Your task to perform on an android device: Show me popular videos on Youtube Image 0: 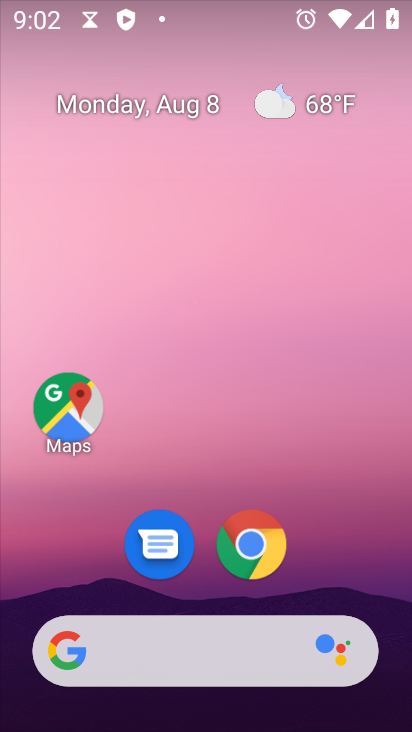
Step 0: press home button
Your task to perform on an android device: Show me popular videos on Youtube Image 1: 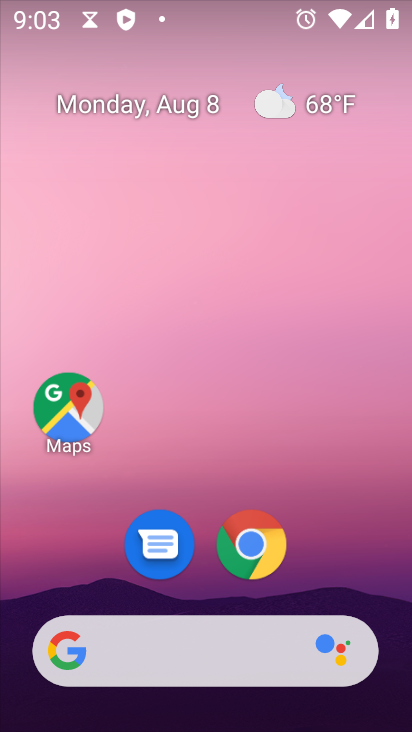
Step 1: drag from (312, 580) to (339, 130)
Your task to perform on an android device: Show me popular videos on Youtube Image 2: 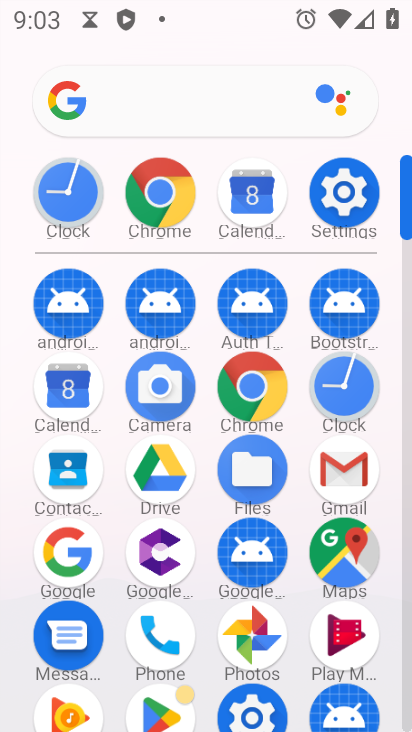
Step 2: drag from (299, 596) to (304, 177)
Your task to perform on an android device: Show me popular videos on Youtube Image 3: 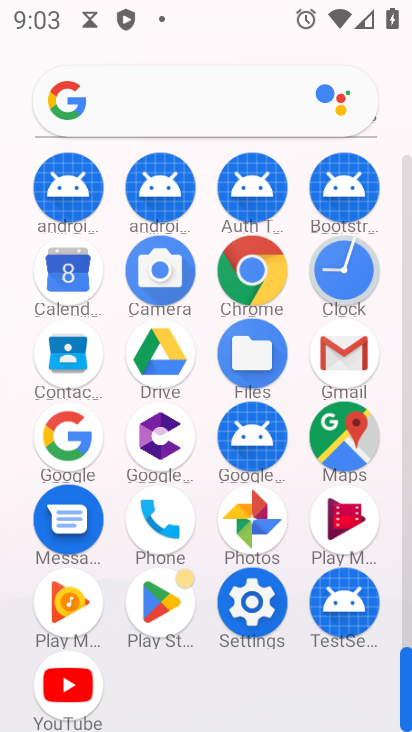
Step 3: click (66, 678)
Your task to perform on an android device: Show me popular videos on Youtube Image 4: 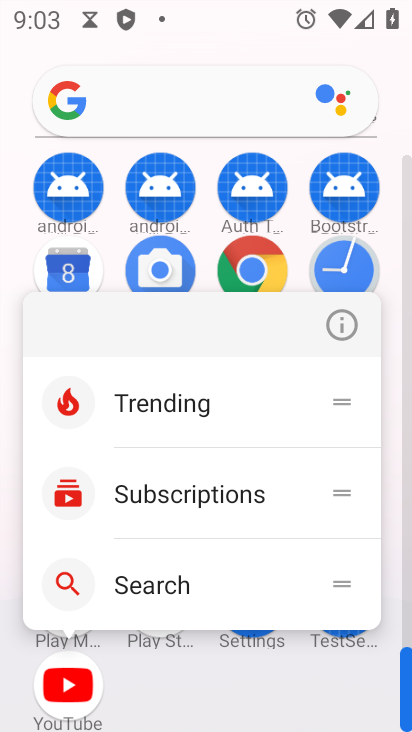
Step 4: click (62, 680)
Your task to perform on an android device: Show me popular videos on Youtube Image 5: 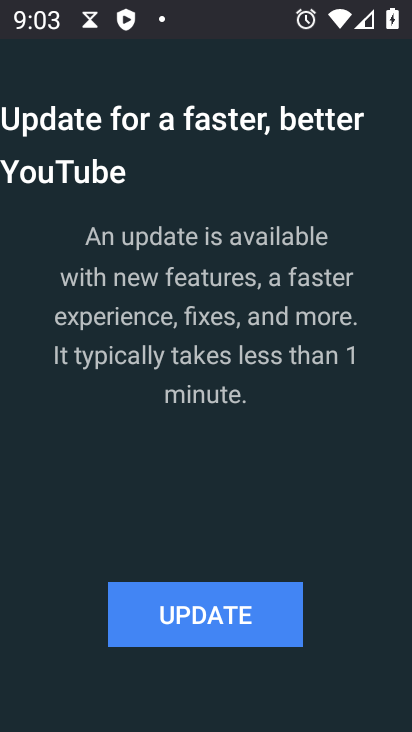
Step 5: click (195, 610)
Your task to perform on an android device: Show me popular videos on Youtube Image 6: 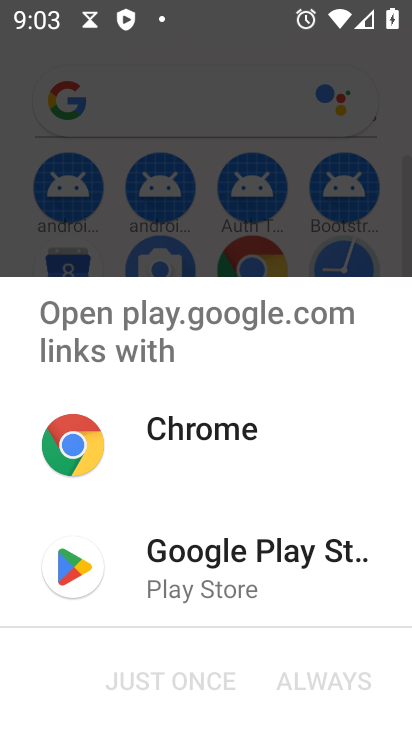
Step 6: click (136, 564)
Your task to perform on an android device: Show me popular videos on Youtube Image 7: 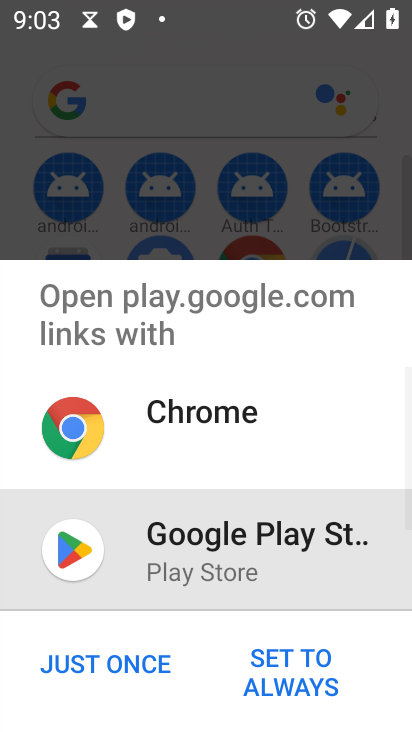
Step 7: click (120, 656)
Your task to perform on an android device: Show me popular videos on Youtube Image 8: 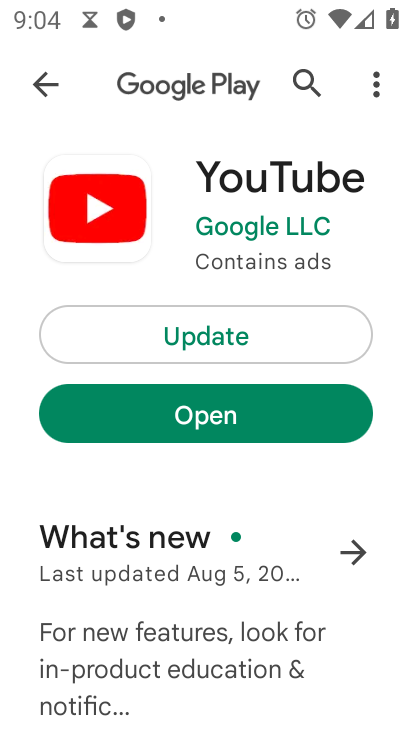
Step 8: click (193, 343)
Your task to perform on an android device: Show me popular videos on Youtube Image 9: 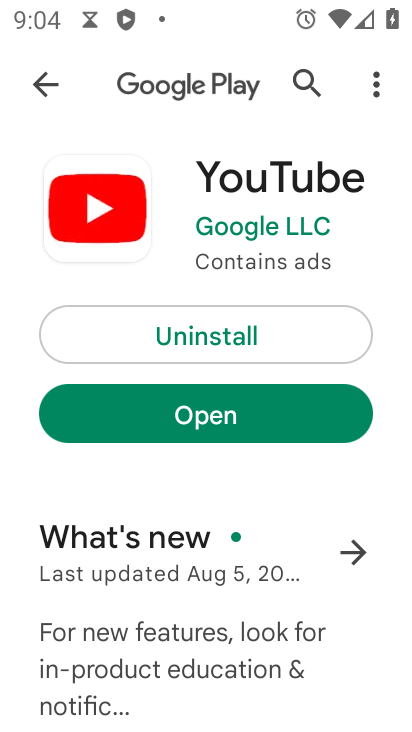
Step 9: click (211, 425)
Your task to perform on an android device: Show me popular videos on Youtube Image 10: 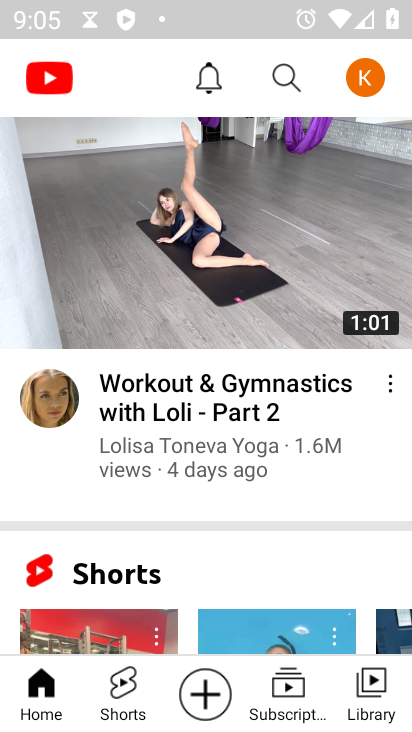
Step 10: drag from (80, 197) to (61, 588)
Your task to perform on an android device: Show me popular videos on Youtube Image 11: 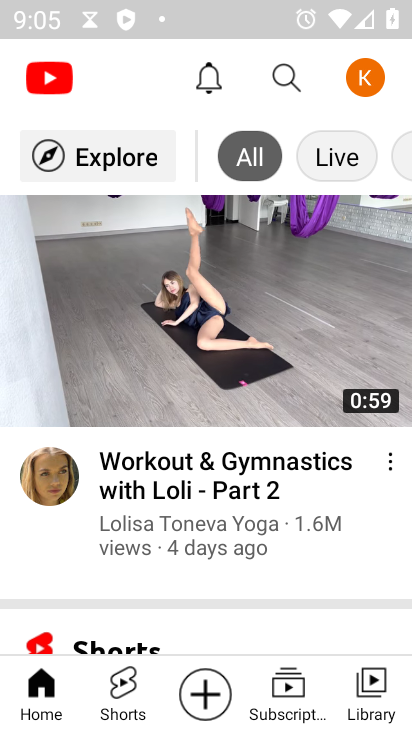
Step 11: click (71, 161)
Your task to perform on an android device: Show me popular videos on Youtube Image 12: 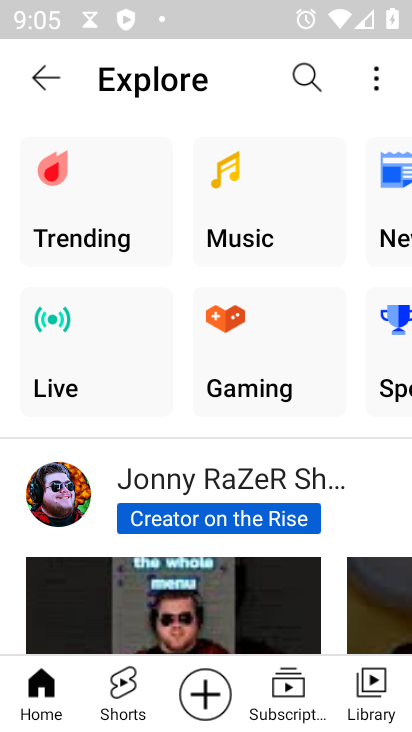
Step 12: click (74, 188)
Your task to perform on an android device: Show me popular videos on Youtube Image 13: 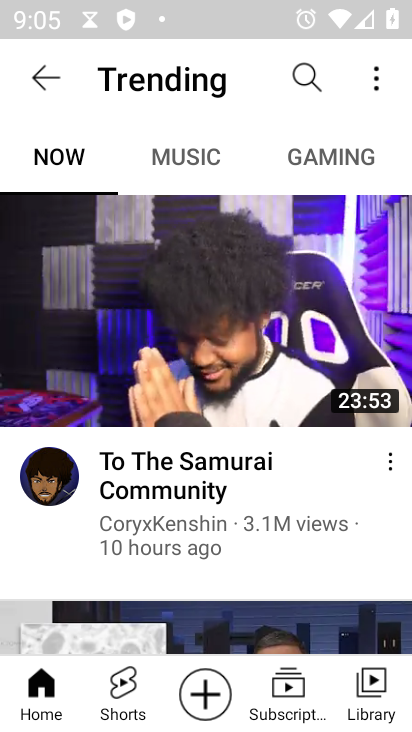
Step 13: task complete